Your task to perform on an android device: Open settings Image 0: 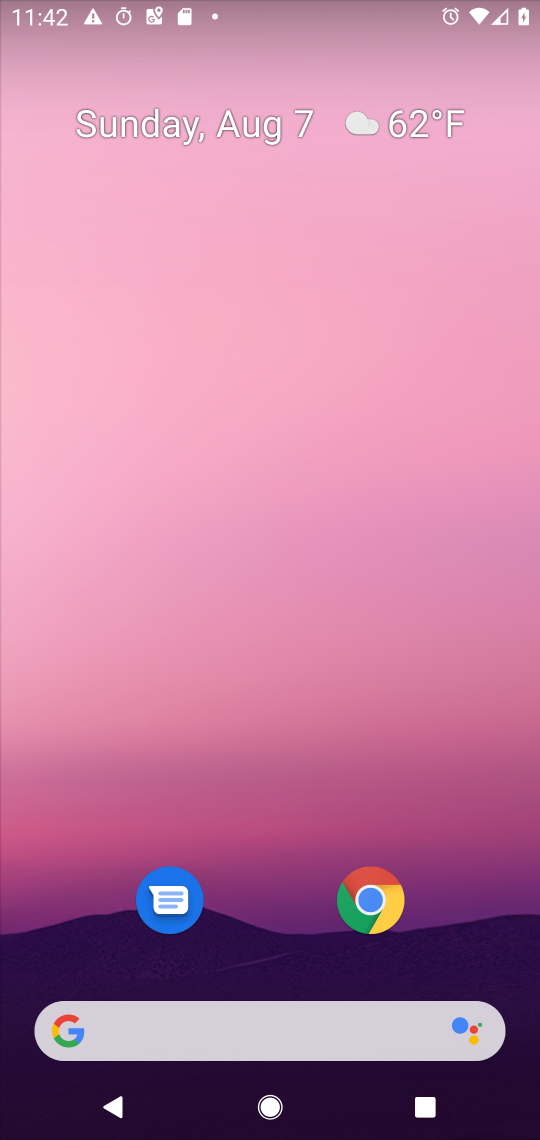
Step 0: press home button
Your task to perform on an android device: Open settings Image 1: 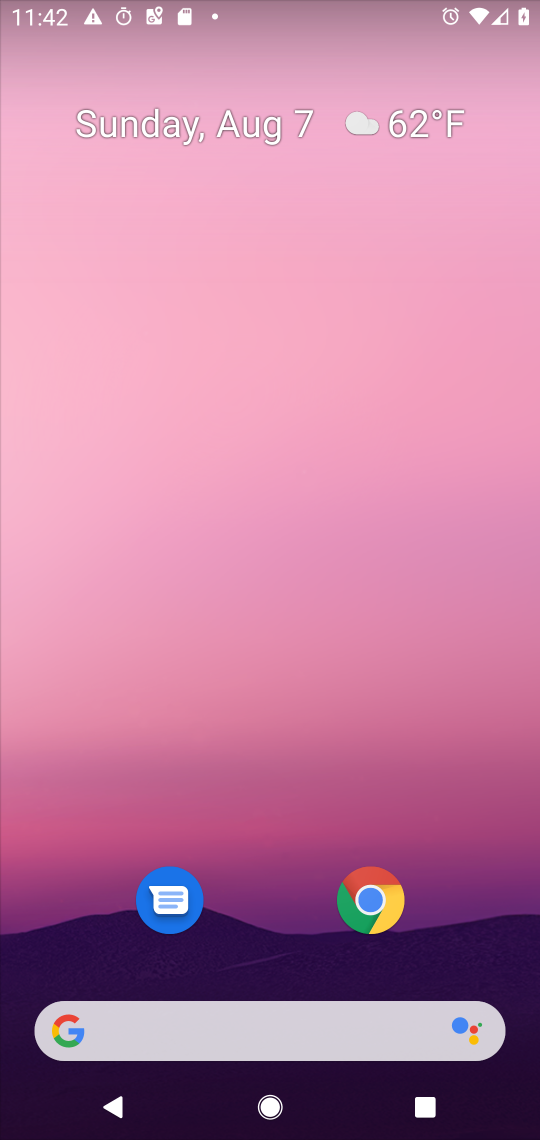
Step 1: drag from (278, 978) to (262, 107)
Your task to perform on an android device: Open settings Image 2: 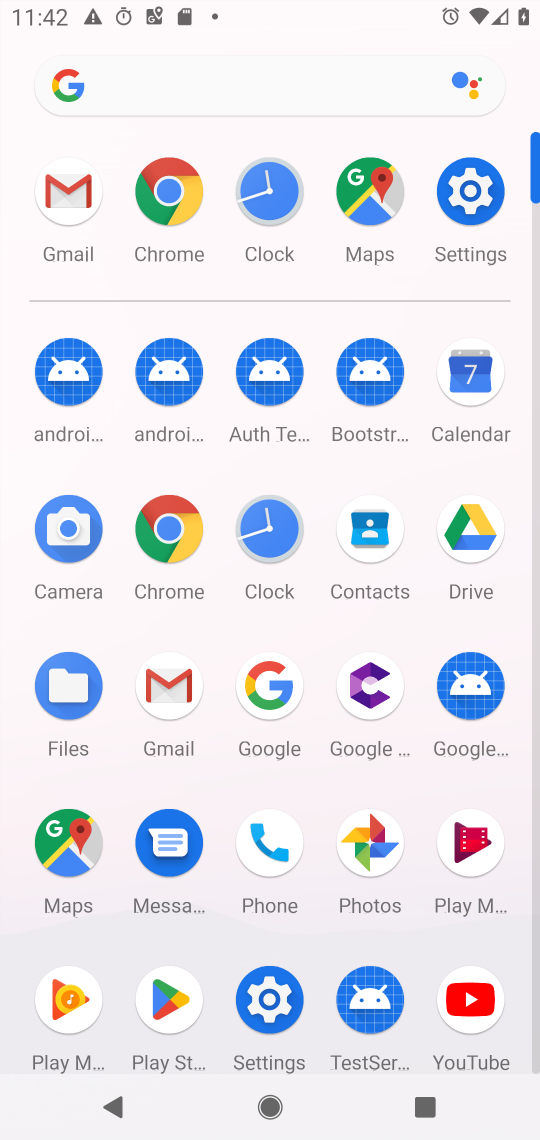
Step 2: click (466, 181)
Your task to perform on an android device: Open settings Image 3: 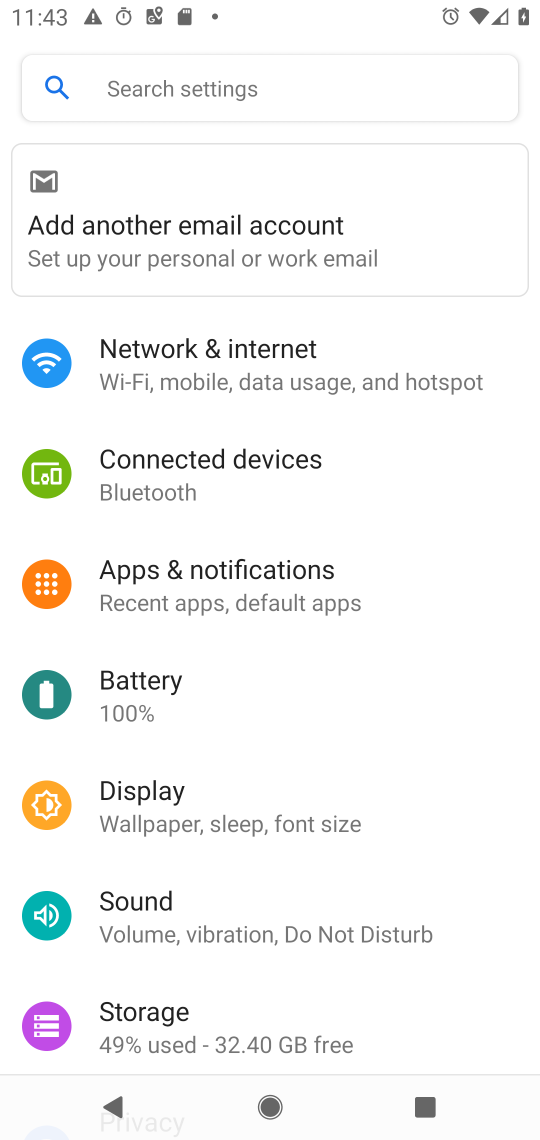
Step 3: task complete